Your task to perform on an android device: toggle show notifications on the lock screen Image 0: 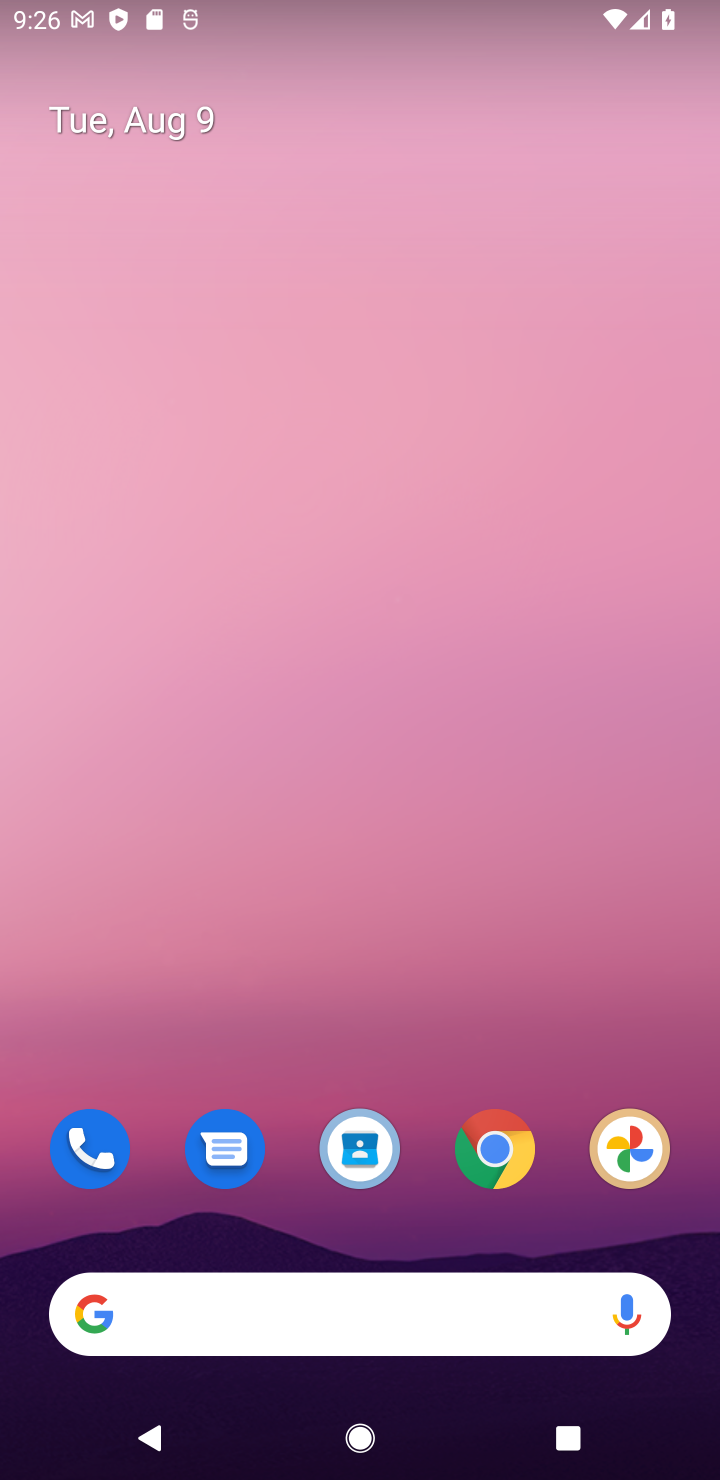
Step 0: drag from (313, 1119) to (464, 160)
Your task to perform on an android device: toggle show notifications on the lock screen Image 1: 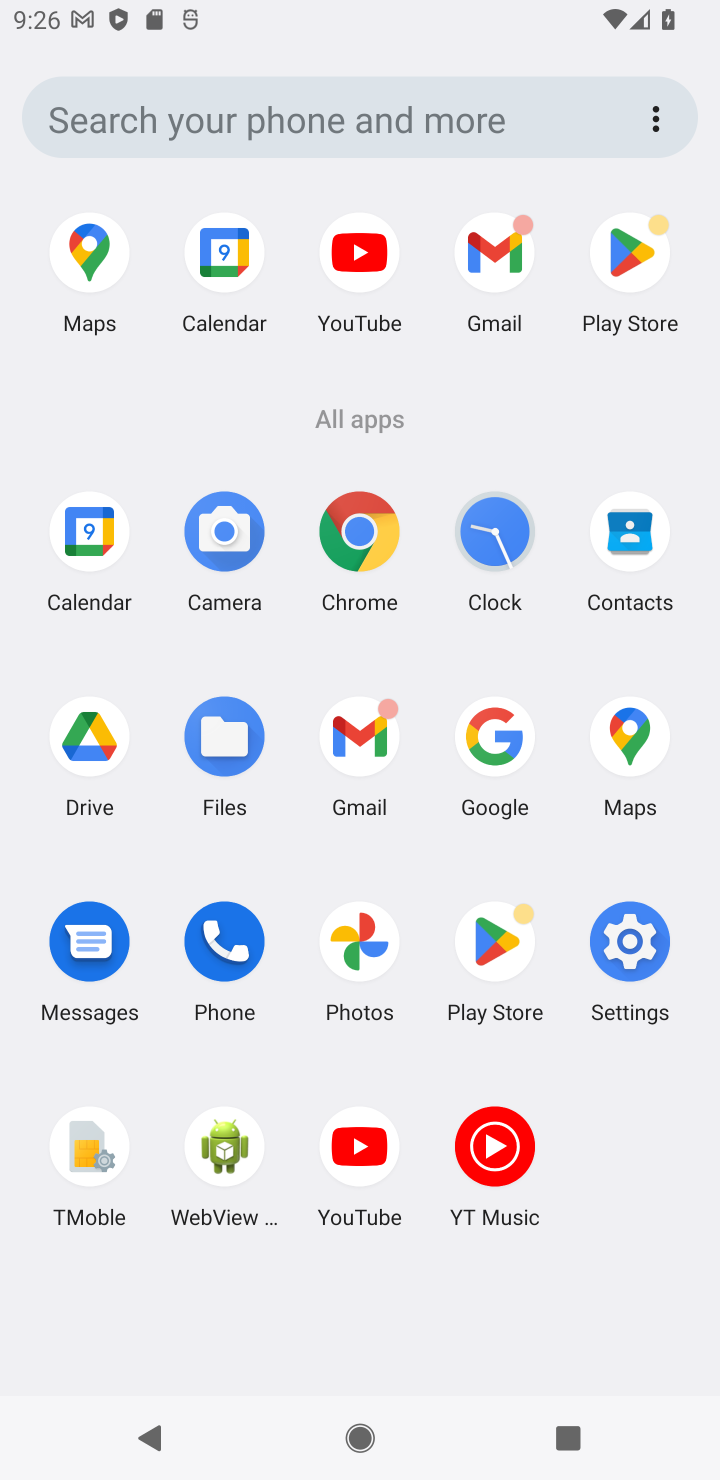
Step 1: click (617, 958)
Your task to perform on an android device: toggle show notifications on the lock screen Image 2: 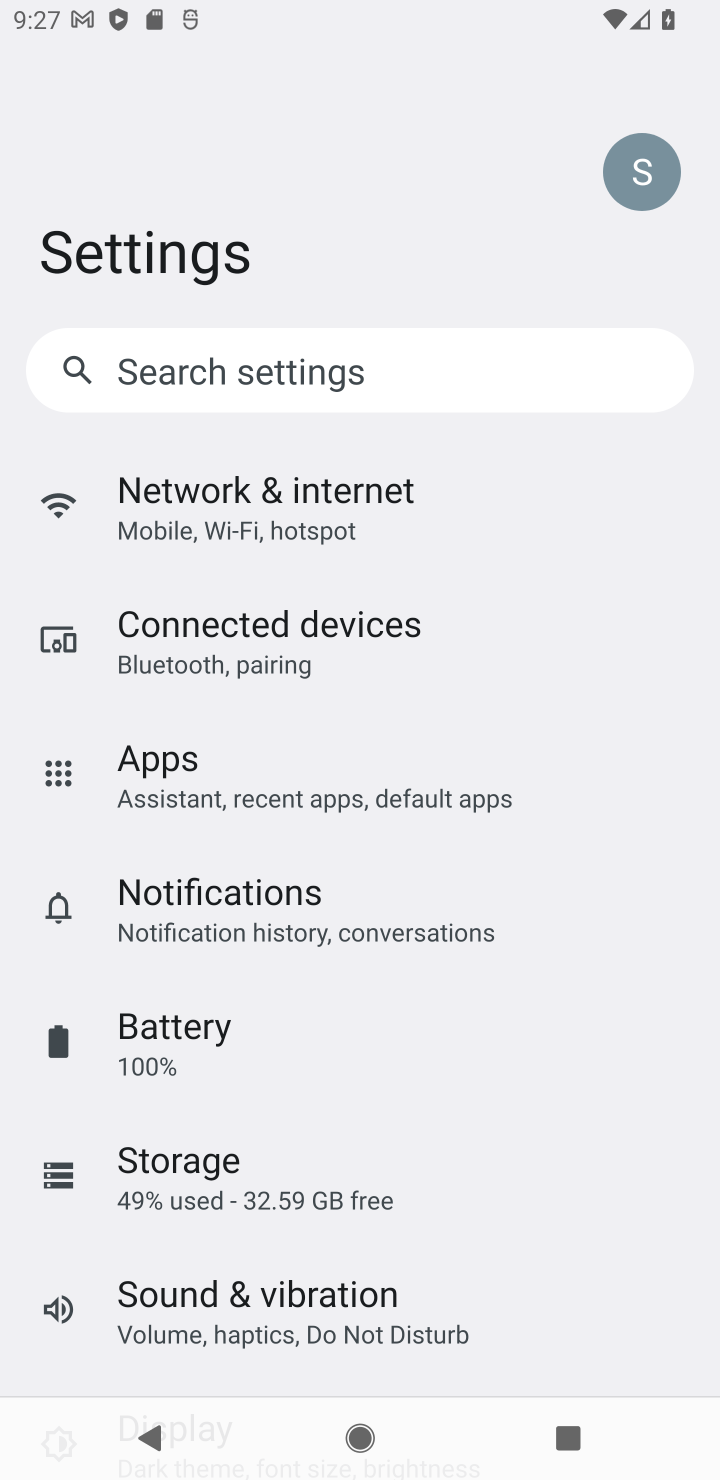
Step 2: click (277, 898)
Your task to perform on an android device: toggle show notifications on the lock screen Image 3: 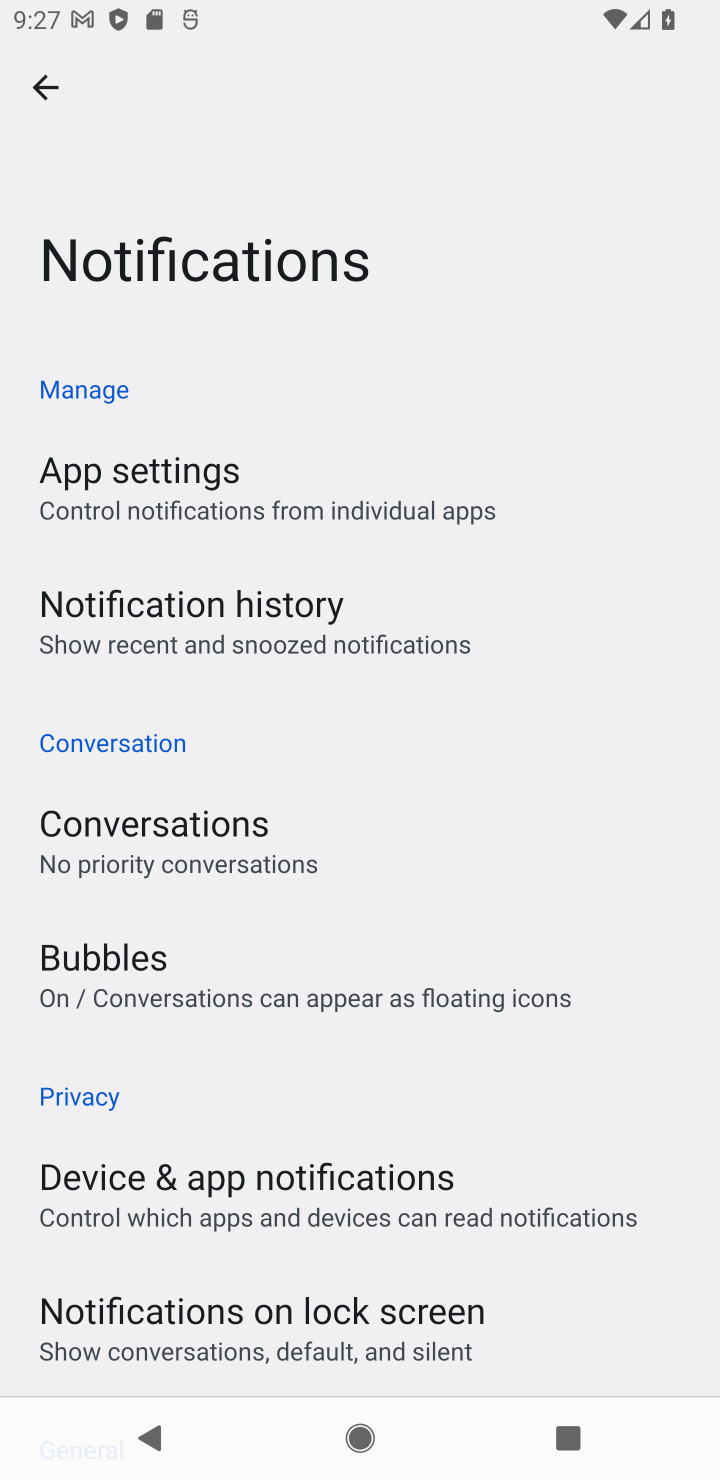
Step 3: click (416, 1321)
Your task to perform on an android device: toggle show notifications on the lock screen Image 4: 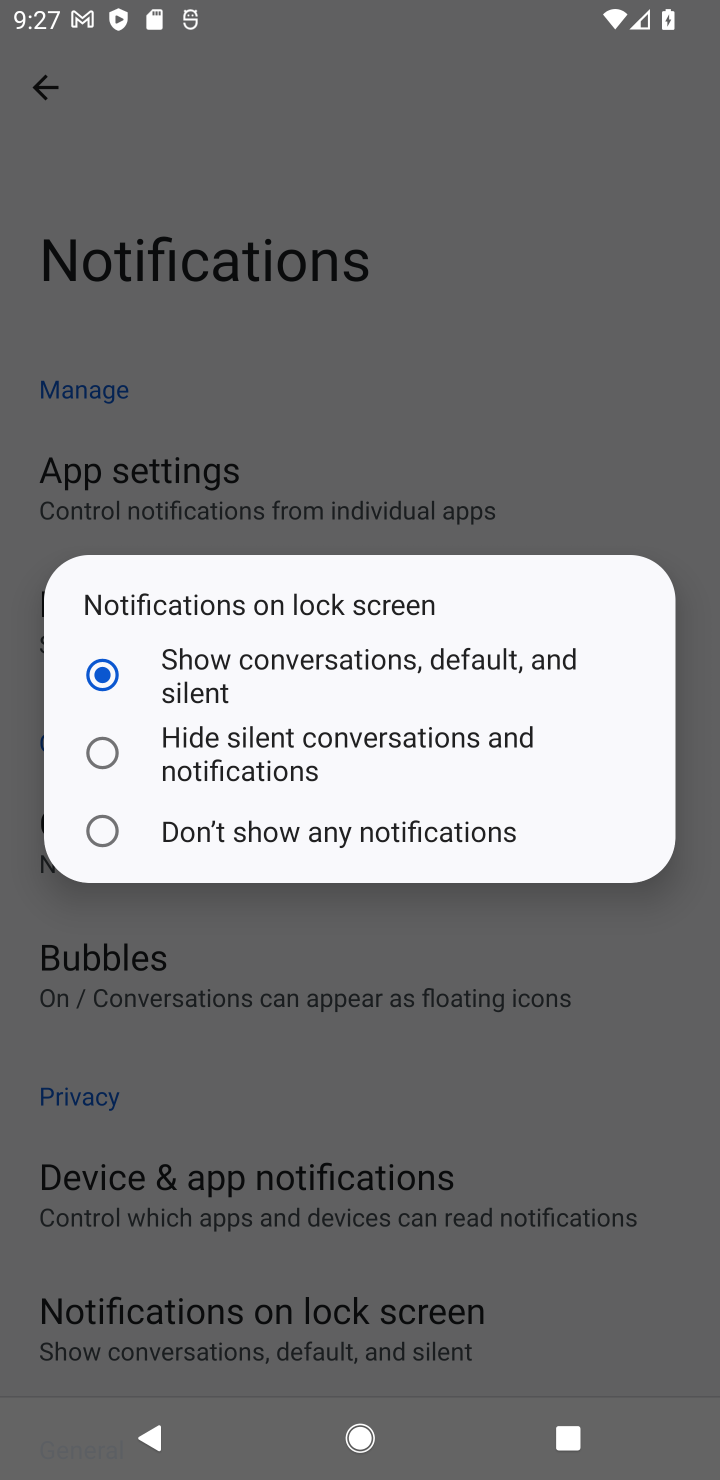
Step 4: task complete